Your task to perform on an android device: Open Youtube and go to "Your channel" Image 0: 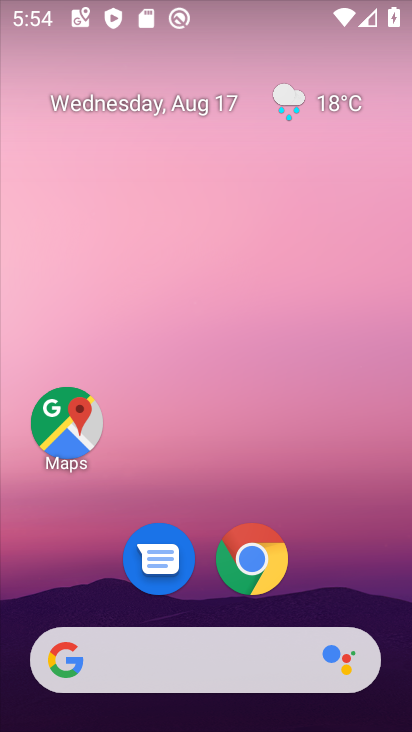
Step 0: drag from (186, 657) to (173, 124)
Your task to perform on an android device: Open Youtube and go to "Your channel" Image 1: 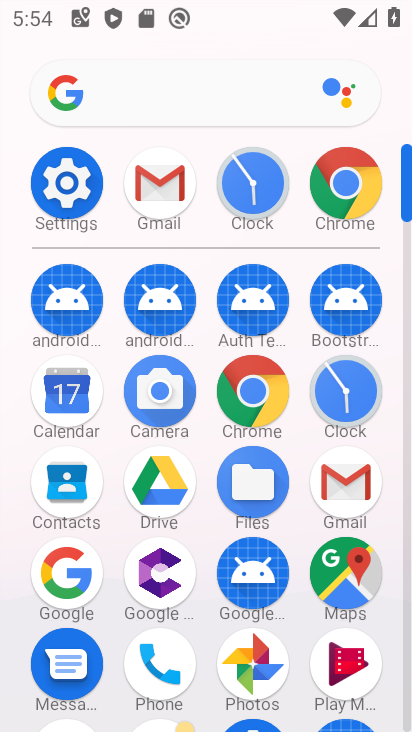
Step 1: drag from (225, 674) to (192, 56)
Your task to perform on an android device: Open Youtube and go to "Your channel" Image 2: 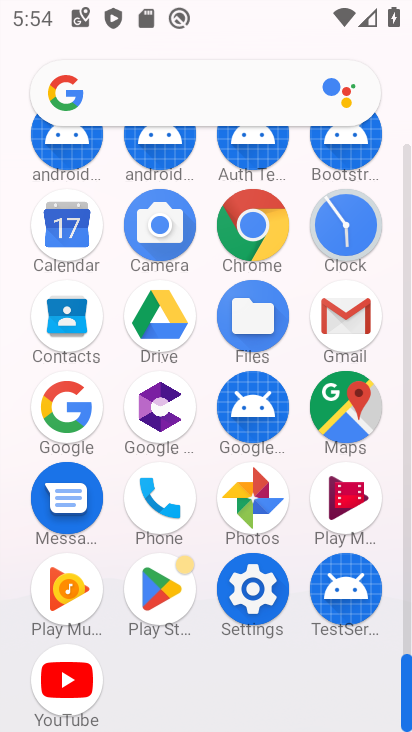
Step 2: click (70, 677)
Your task to perform on an android device: Open Youtube and go to "Your channel" Image 3: 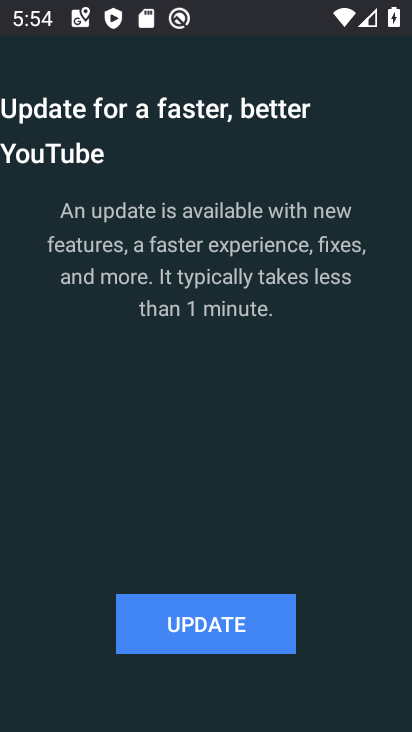
Step 3: click (172, 638)
Your task to perform on an android device: Open Youtube and go to "Your channel" Image 4: 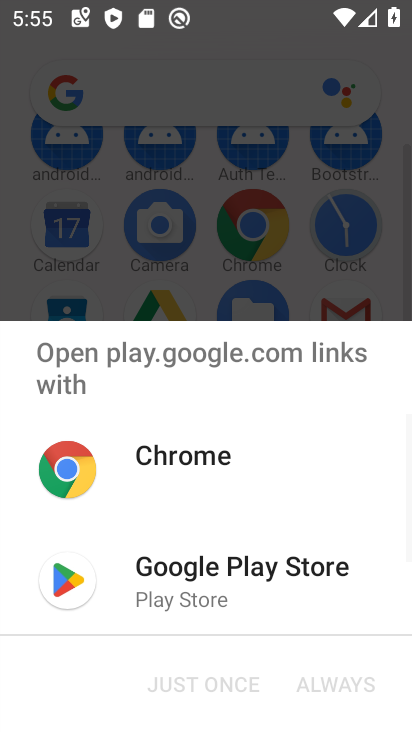
Step 4: drag from (247, 585) to (330, 585)
Your task to perform on an android device: Open Youtube and go to "Your channel" Image 5: 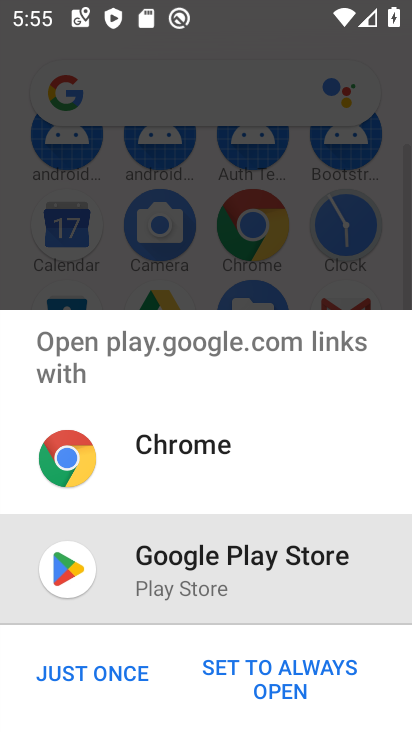
Step 5: click (121, 678)
Your task to perform on an android device: Open Youtube and go to "Your channel" Image 6: 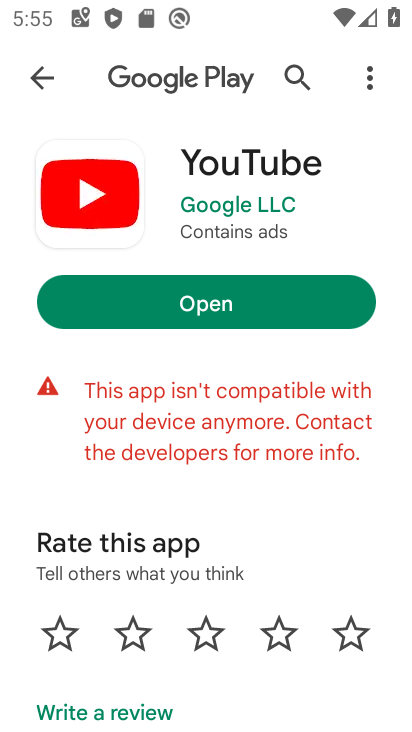
Step 6: task complete